Your task to perform on an android device: open the mobile data screen to see how much data has been used Image 0: 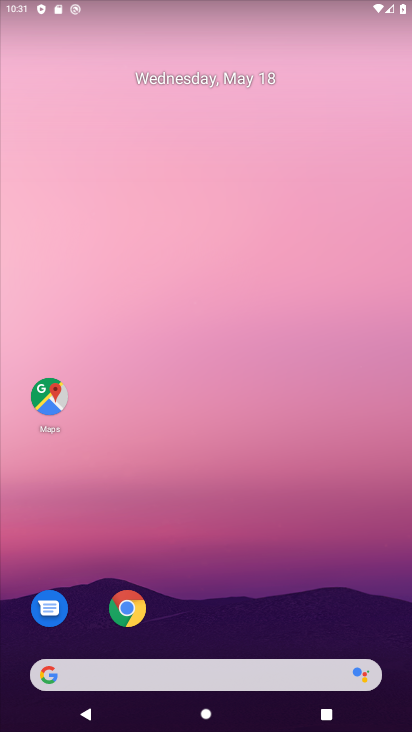
Step 0: press home button
Your task to perform on an android device: open the mobile data screen to see how much data has been used Image 1: 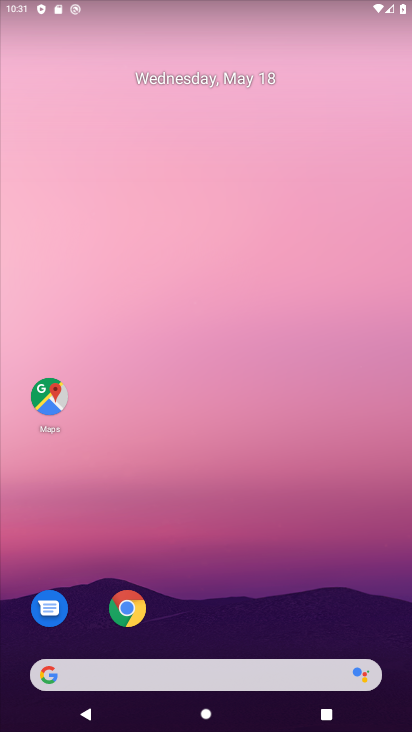
Step 1: drag from (318, 138) to (318, 414)
Your task to perform on an android device: open the mobile data screen to see how much data has been used Image 2: 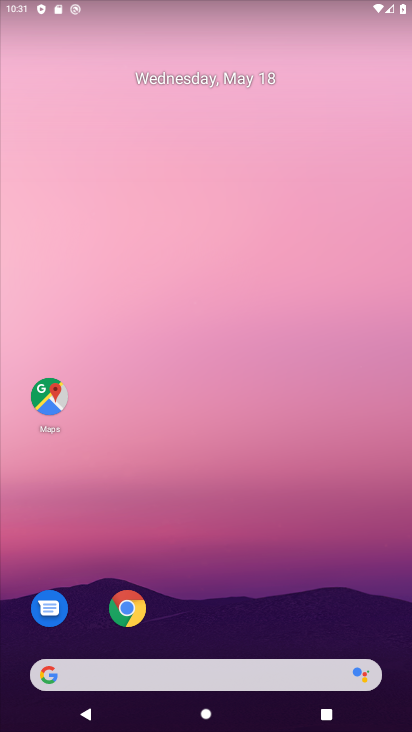
Step 2: drag from (374, 2) to (298, 593)
Your task to perform on an android device: open the mobile data screen to see how much data has been used Image 3: 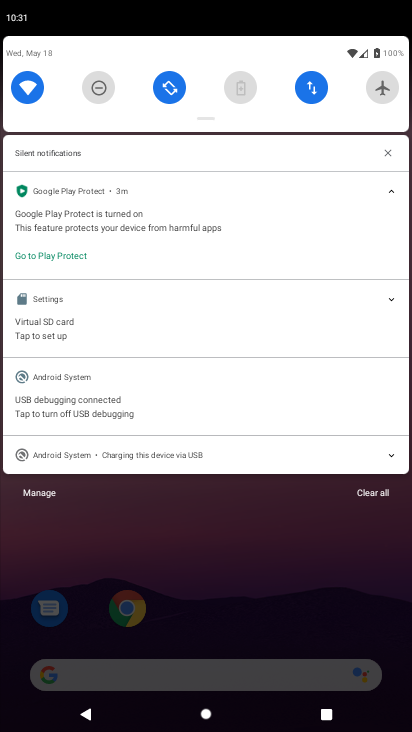
Step 3: click (299, 87)
Your task to perform on an android device: open the mobile data screen to see how much data has been used Image 4: 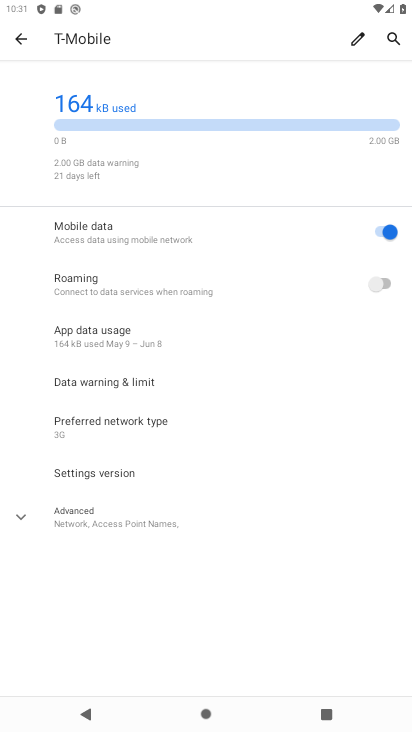
Step 4: task complete